Your task to perform on an android device: show emergency info Image 0: 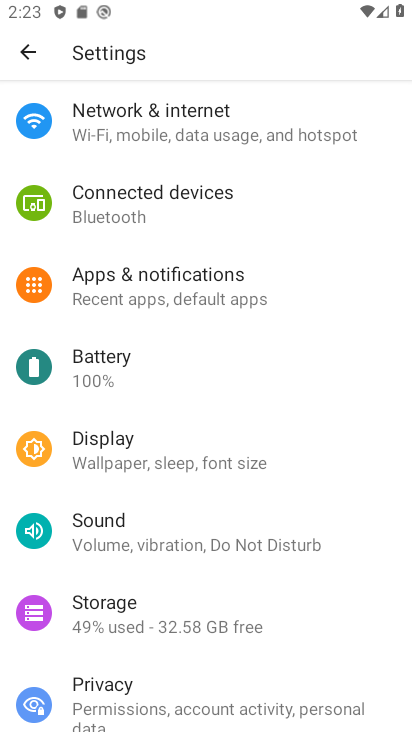
Step 0: drag from (216, 490) to (258, 108)
Your task to perform on an android device: show emergency info Image 1: 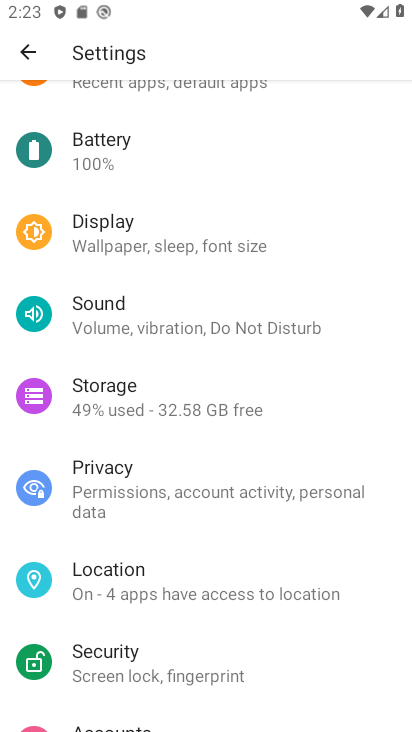
Step 1: drag from (194, 545) to (224, 163)
Your task to perform on an android device: show emergency info Image 2: 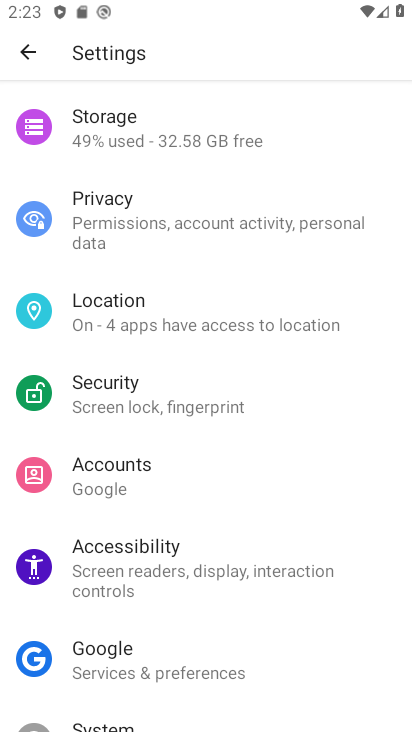
Step 2: drag from (189, 633) to (287, 111)
Your task to perform on an android device: show emergency info Image 3: 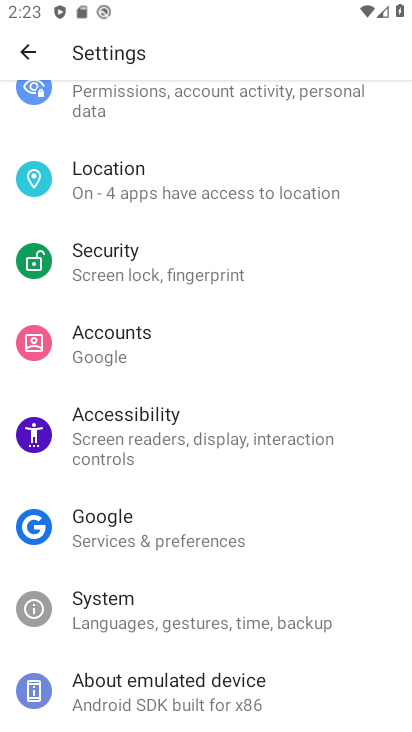
Step 3: click (166, 685)
Your task to perform on an android device: show emergency info Image 4: 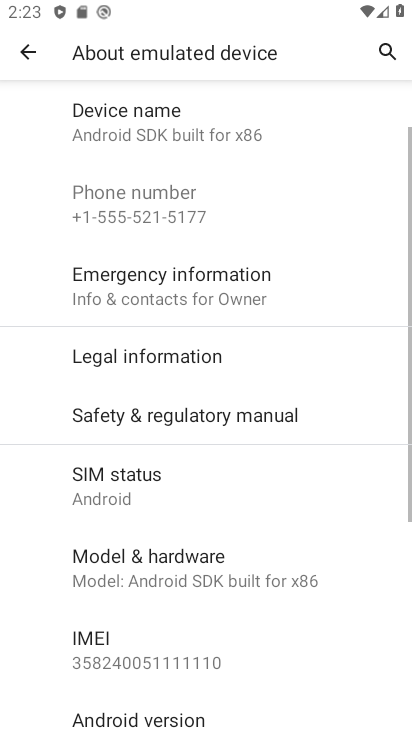
Step 4: drag from (179, 668) to (285, 211)
Your task to perform on an android device: show emergency info Image 5: 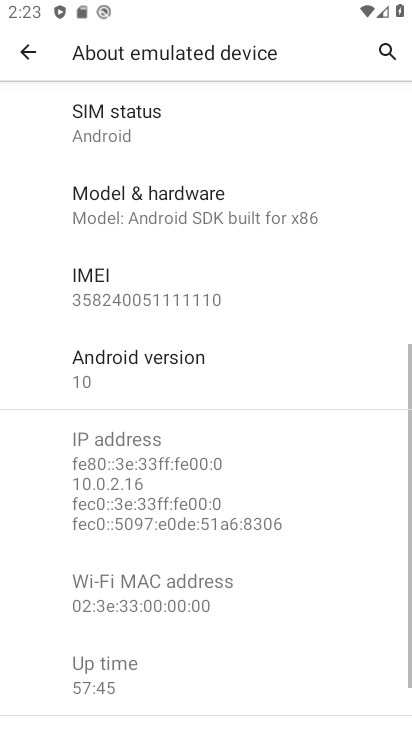
Step 5: drag from (208, 678) to (300, 367)
Your task to perform on an android device: show emergency info Image 6: 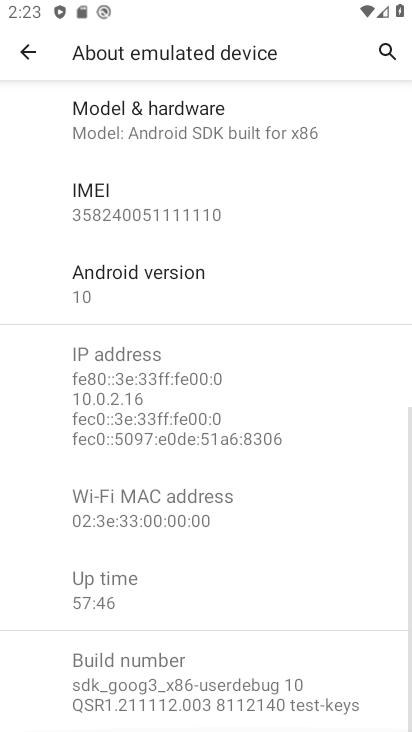
Step 6: drag from (266, 212) to (263, 707)
Your task to perform on an android device: show emergency info Image 7: 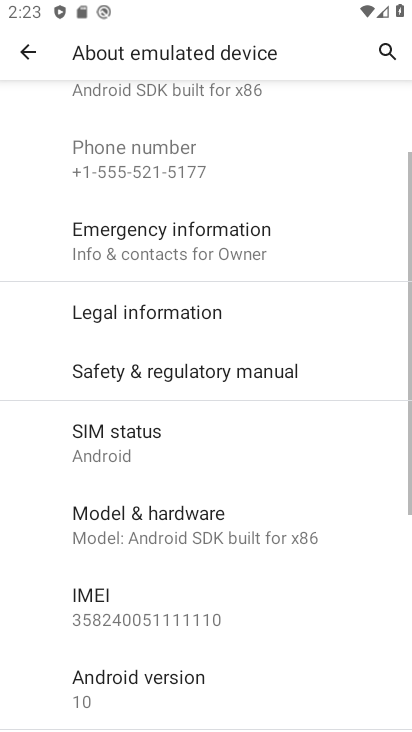
Step 7: click (163, 250)
Your task to perform on an android device: show emergency info Image 8: 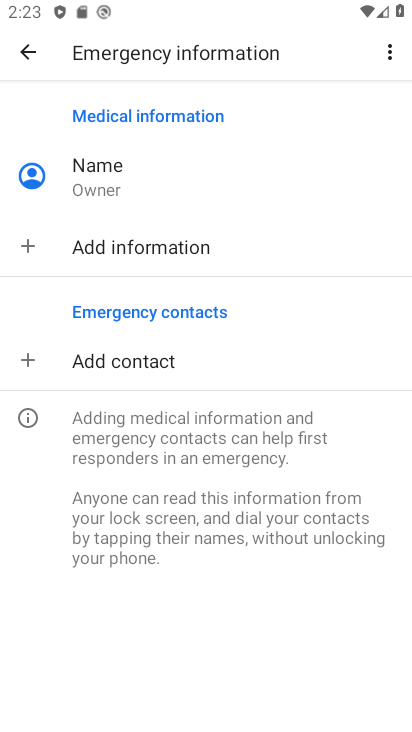
Step 8: task complete